Your task to perform on an android device: turn pop-ups on in chrome Image 0: 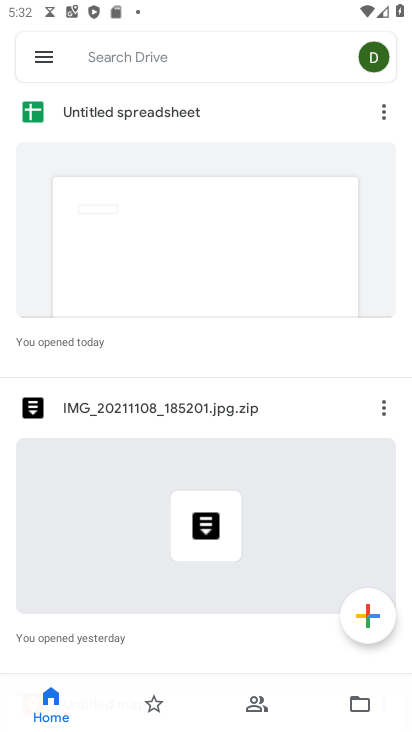
Step 0: press home button
Your task to perform on an android device: turn pop-ups on in chrome Image 1: 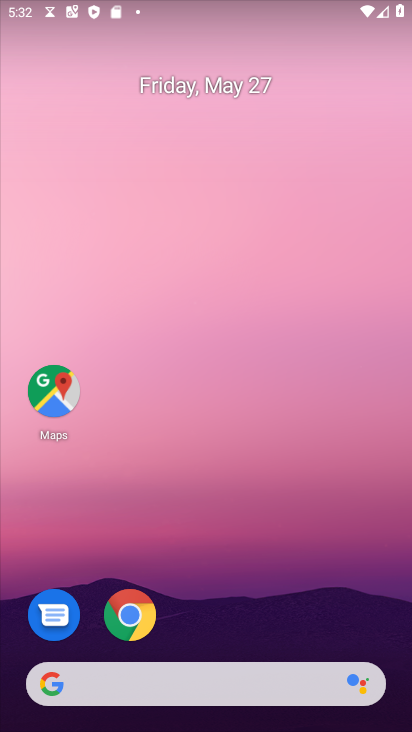
Step 1: click (133, 600)
Your task to perform on an android device: turn pop-ups on in chrome Image 2: 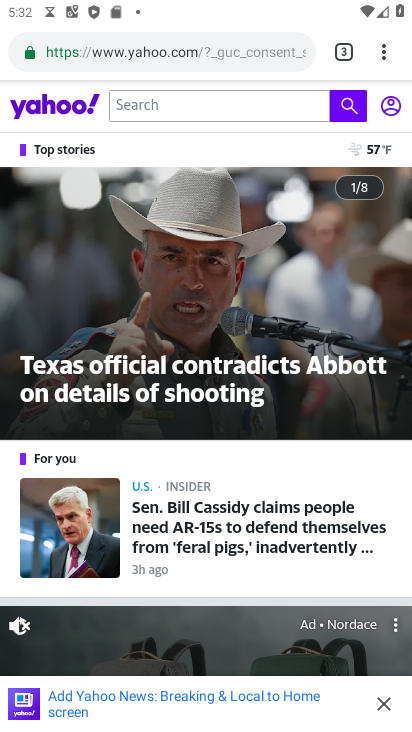
Step 2: click (381, 55)
Your task to perform on an android device: turn pop-ups on in chrome Image 3: 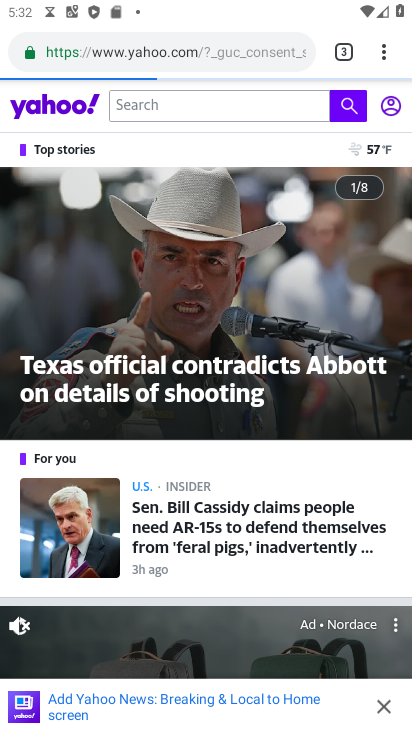
Step 3: click (379, 50)
Your task to perform on an android device: turn pop-ups on in chrome Image 4: 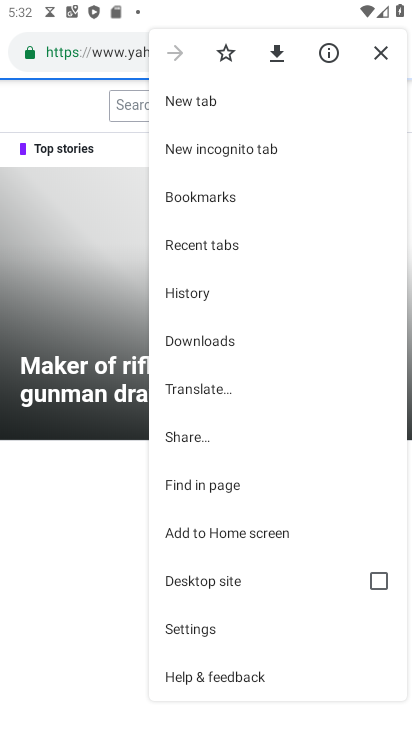
Step 4: click (216, 629)
Your task to perform on an android device: turn pop-ups on in chrome Image 5: 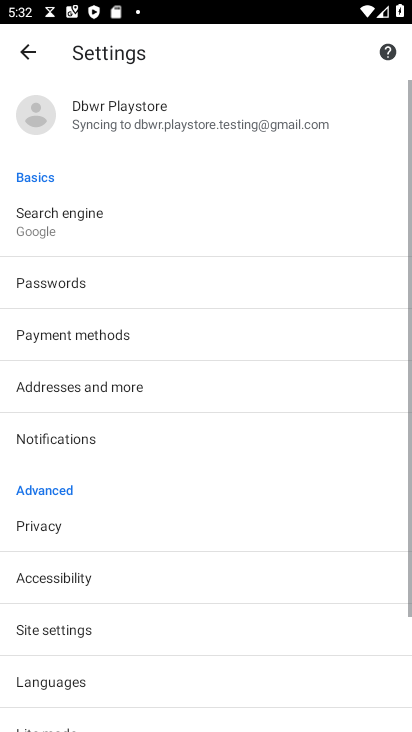
Step 5: drag from (211, 625) to (213, 143)
Your task to perform on an android device: turn pop-ups on in chrome Image 6: 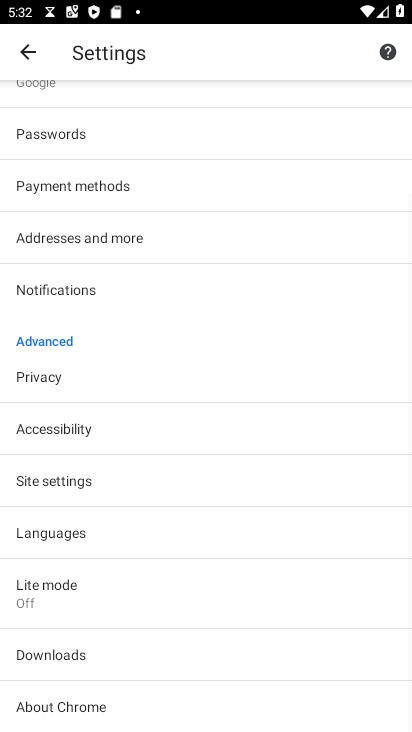
Step 6: click (136, 486)
Your task to perform on an android device: turn pop-ups on in chrome Image 7: 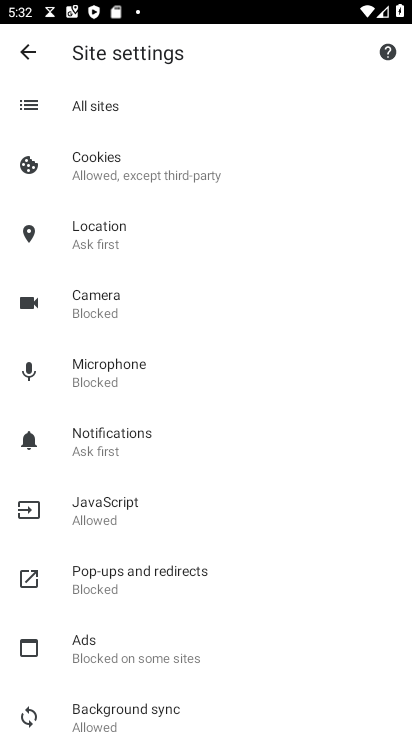
Step 7: click (155, 585)
Your task to perform on an android device: turn pop-ups on in chrome Image 8: 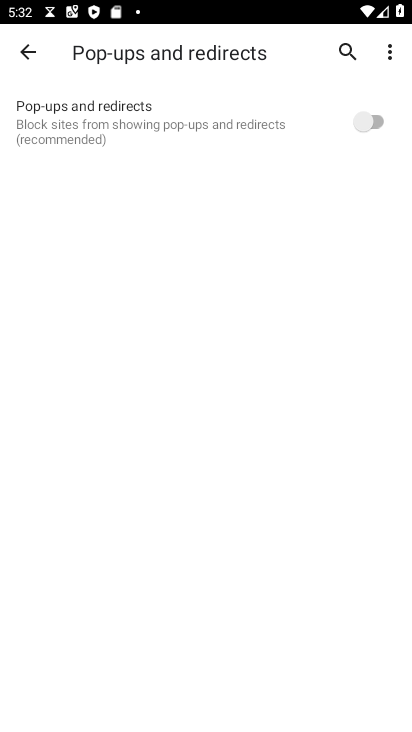
Step 8: click (365, 117)
Your task to perform on an android device: turn pop-ups on in chrome Image 9: 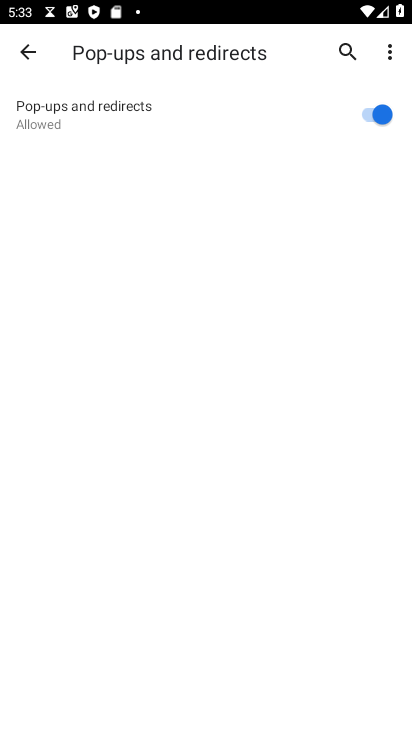
Step 9: task complete